Your task to perform on an android device: Go to internet settings Image 0: 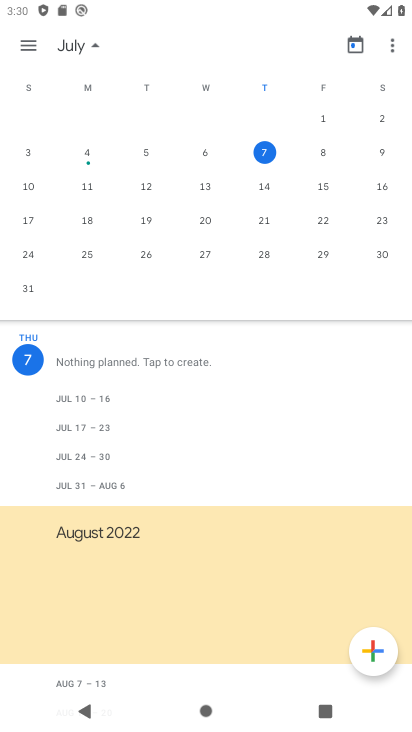
Step 0: press home button
Your task to perform on an android device: Go to internet settings Image 1: 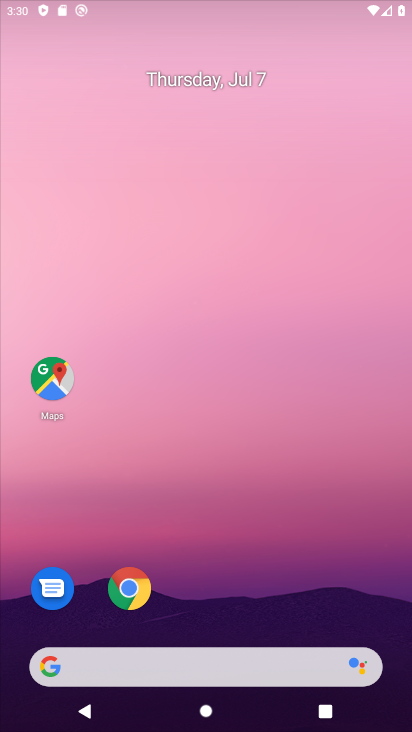
Step 1: drag from (288, 682) to (268, 169)
Your task to perform on an android device: Go to internet settings Image 2: 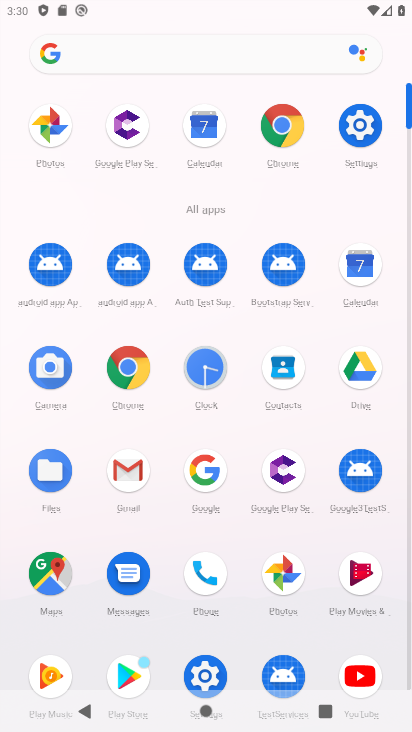
Step 2: click (348, 136)
Your task to perform on an android device: Go to internet settings Image 3: 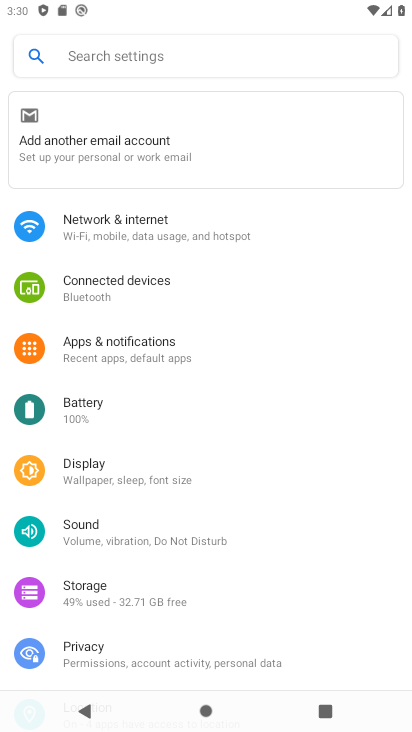
Step 3: drag from (240, 655) to (250, 262)
Your task to perform on an android device: Go to internet settings Image 4: 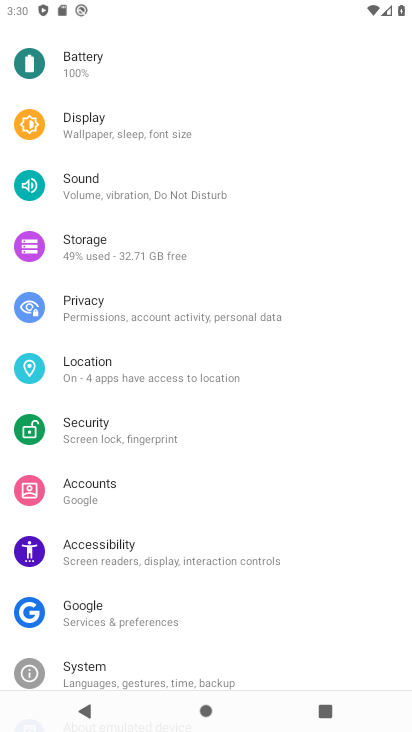
Step 4: drag from (260, 670) to (265, 407)
Your task to perform on an android device: Go to internet settings Image 5: 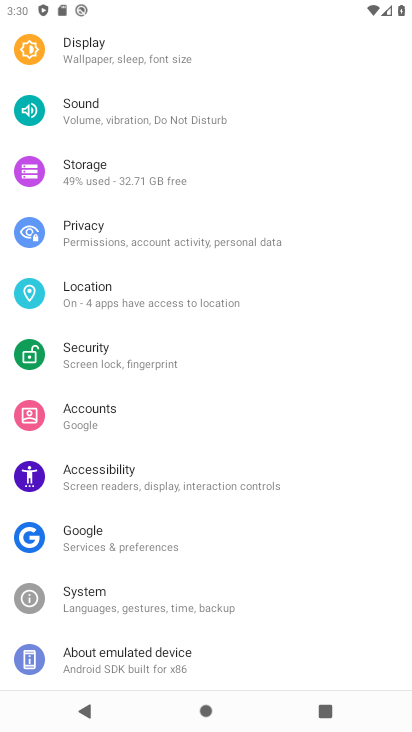
Step 5: drag from (246, 273) to (264, 612)
Your task to perform on an android device: Go to internet settings Image 6: 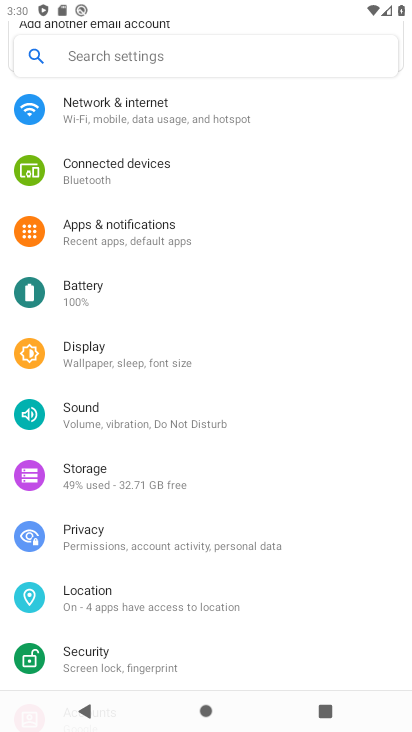
Step 6: click (185, 106)
Your task to perform on an android device: Go to internet settings Image 7: 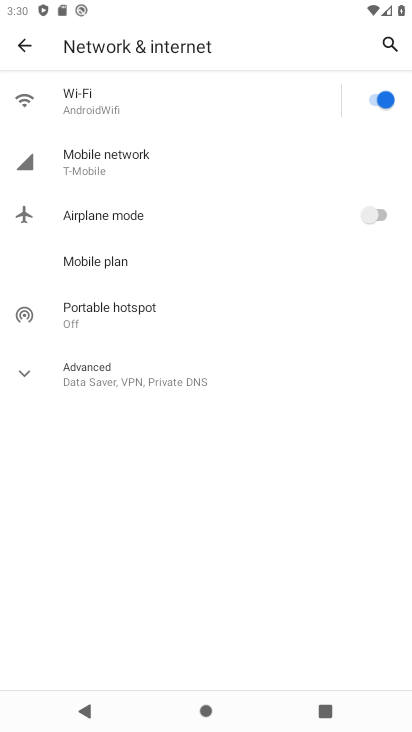
Step 7: task complete